Your task to perform on an android device: Go to Google Image 0: 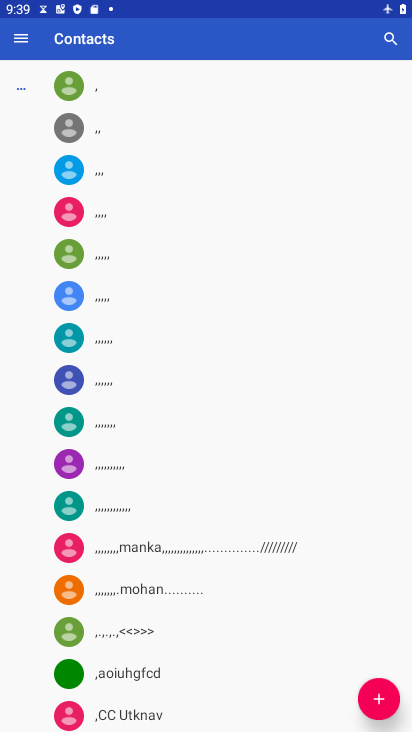
Step 0: press home button
Your task to perform on an android device: Go to Google Image 1: 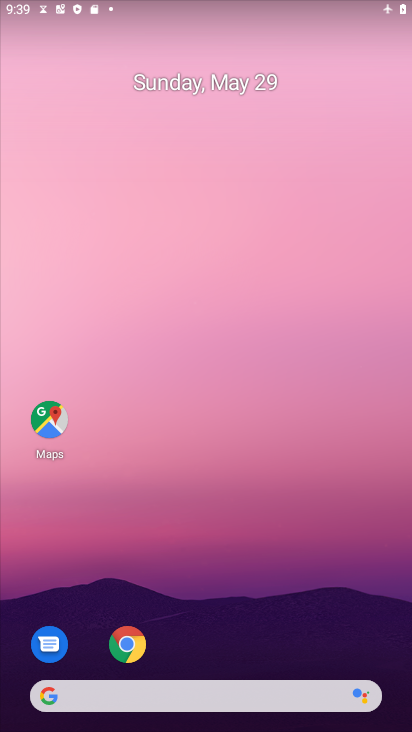
Step 1: drag from (246, 633) to (298, 124)
Your task to perform on an android device: Go to Google Image 2: 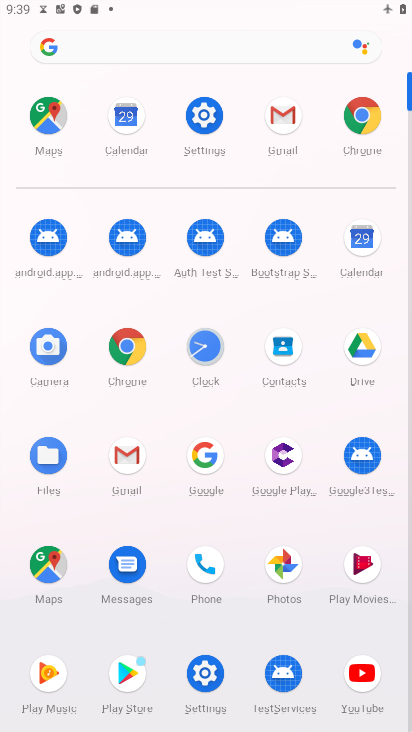
Step 2: click (209, 448)
Your task to perform on an android device: Go to Google Image 3: 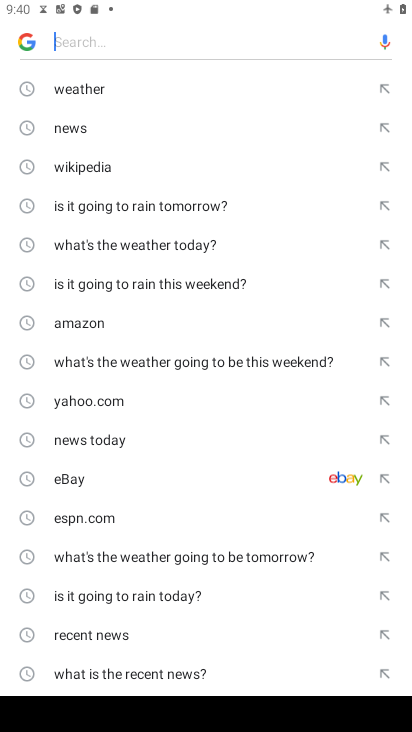
Step 3: task complete